Your task to perform on an android device: turn pop-ups off in chrome Image 0: 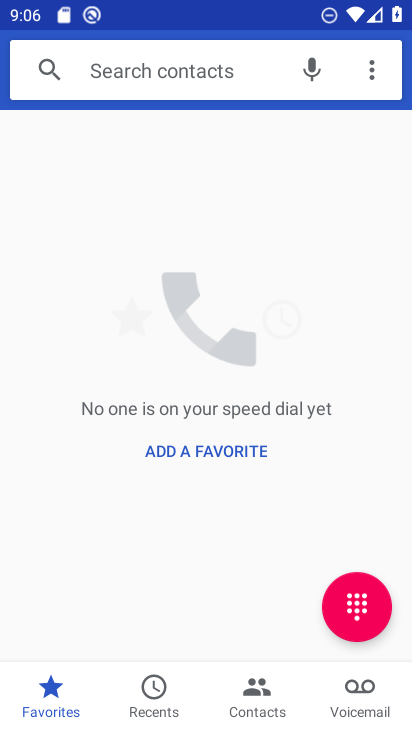
Step 0: press home button
Your task to perform on an android device: turn pop-ups off in chrome Image 1: 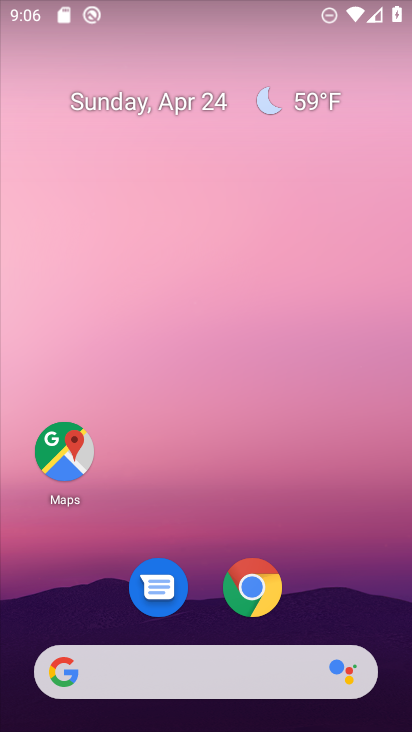
Step 1: click (248, 588)
Your task to perform on an android device: turn pop-ups off in chrome Image 2: 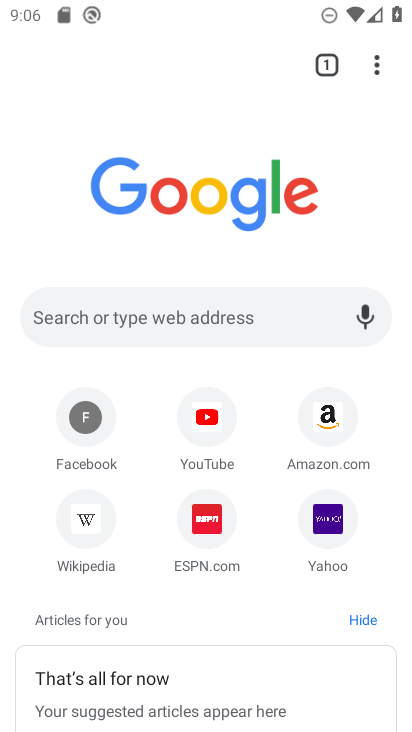
Step 2: click (376, 61)
Your task to perform on an android device: turn pop-ups off in chrome Image 3: 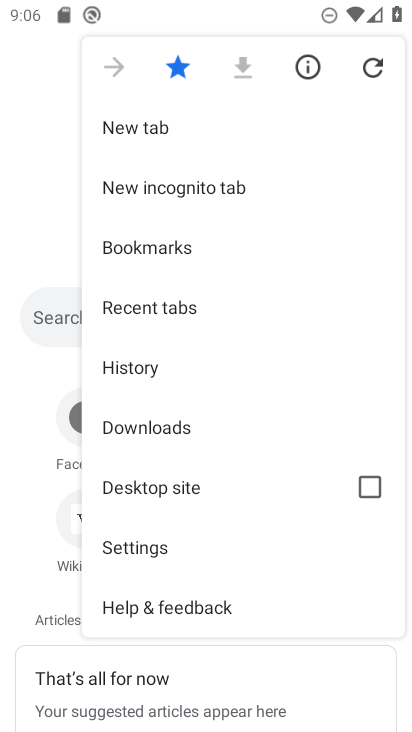
Step 3: click (142, 546)
Your task to perform on an android device: turn pop-ups off in chrome Image 4: 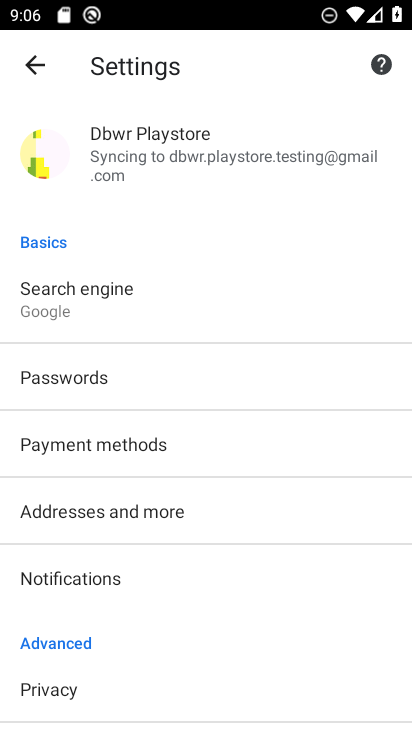
Step 4: drag from (128, 659) to (167, 539)
Your task to perform on an android device: turn pop-ups off in chrome Image 5: 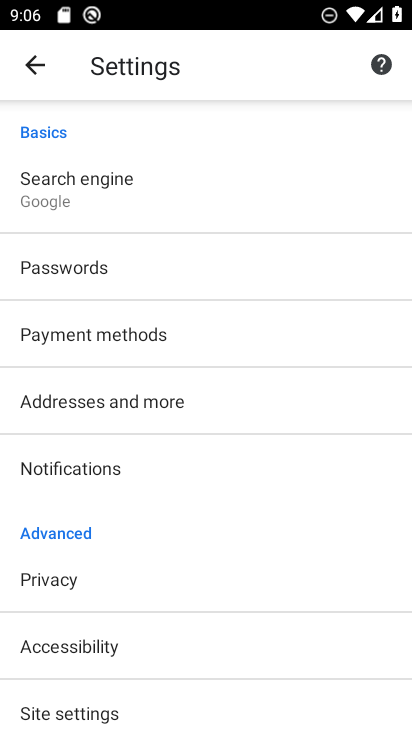
Step 5: drag from (152, 567) to (184, 465)
Your task to perform on an android device: turn pop-ups off in chrome Image 6: 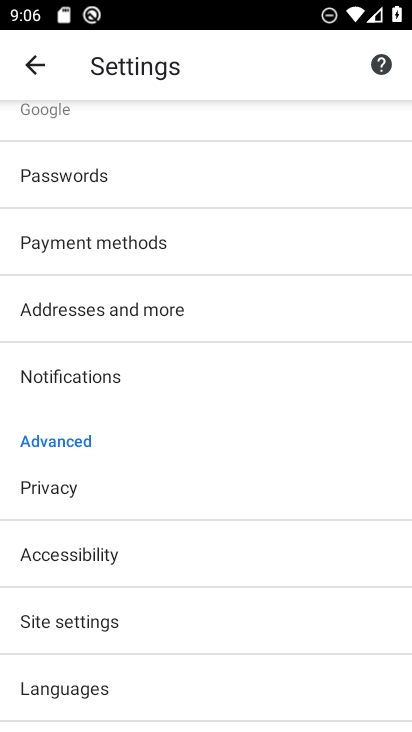
Step 6: click (90, 621)
Your task to perform on an android device: turn pop-ups off in chrome Image 7: 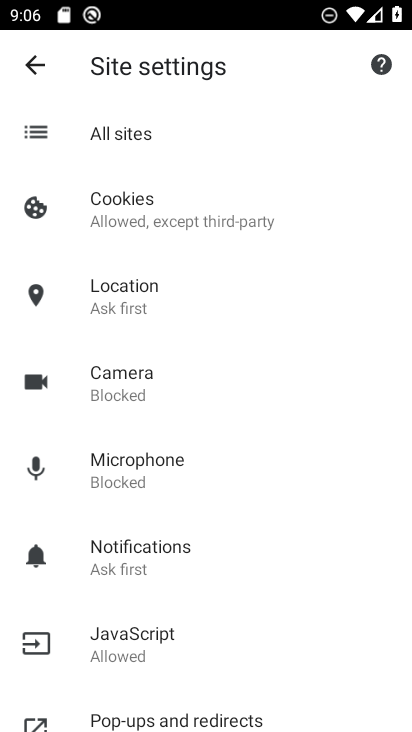
Step 7: drag from (194, 622) to (242, 537)
Your task to perform on an android device: turn pop-ups off in chrome Image 8: 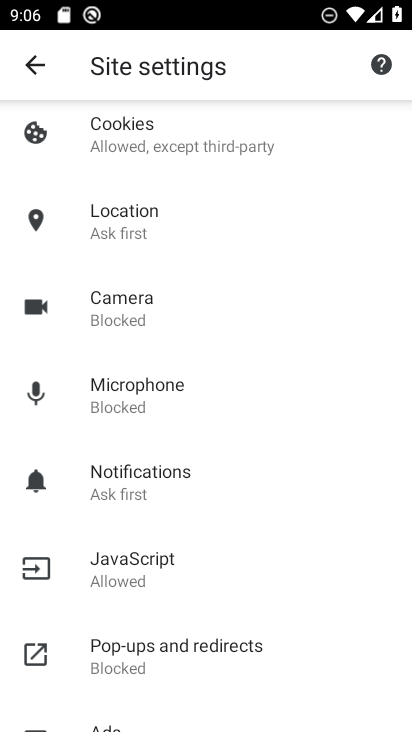
Step 8: click (177, 645)
Your task to perform on an android device: turn pop-ups off in chrome Image 9: 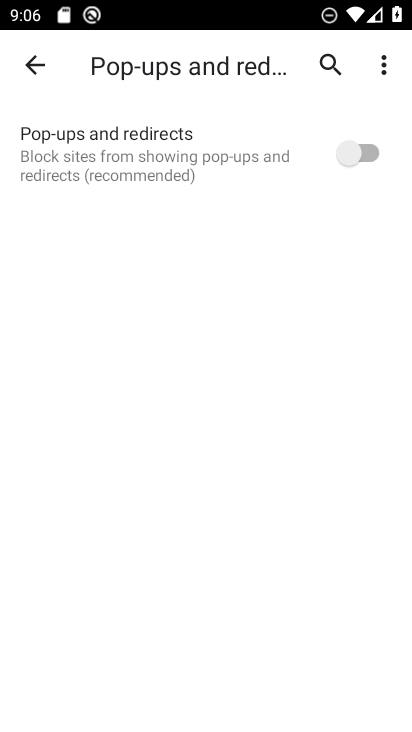
Step 9: task complete